Your task to perform on an android device: See recent photos Image 0: 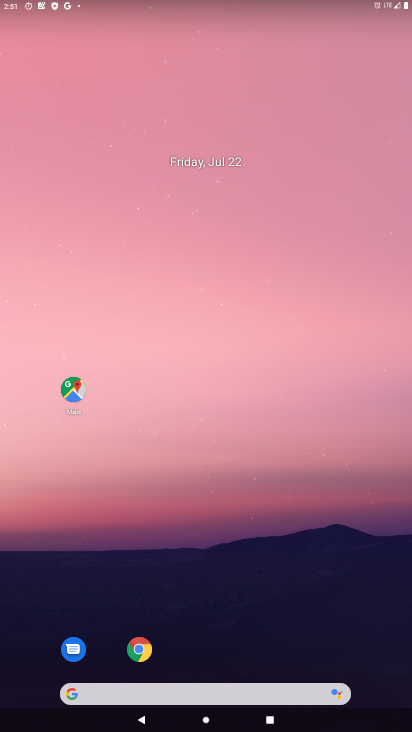
Step 0: drag from (260, 611) to (265, 84)
Your task to perform on an android device: See recent photos Image 1: 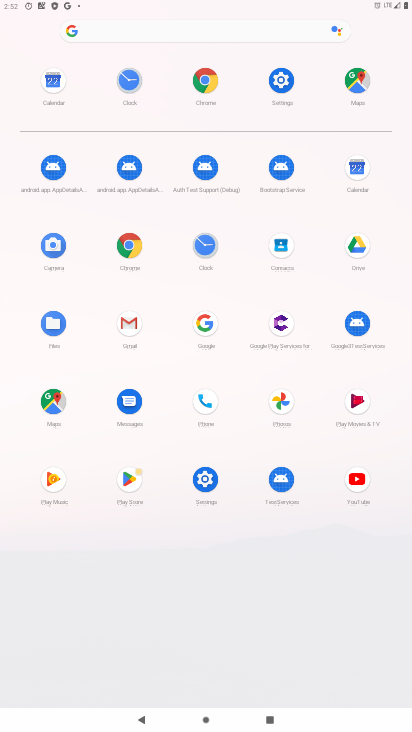
Step 1: click (280, 398)
Your task to perform on an android device: See recent photos Image 2: 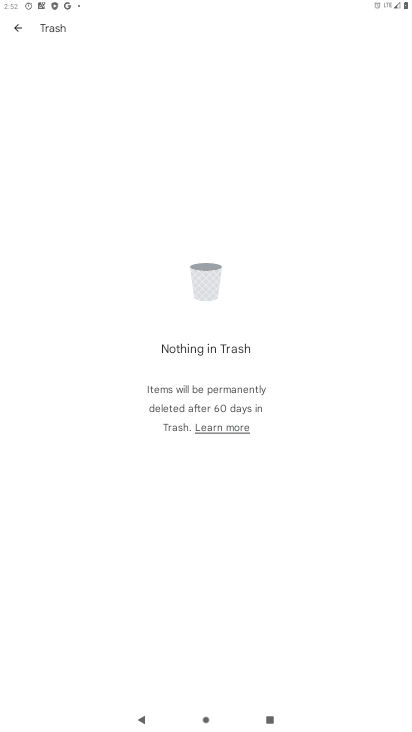
Step 2: click (19, 19)
Your task to perform on an android device: See recent photos Image 3: 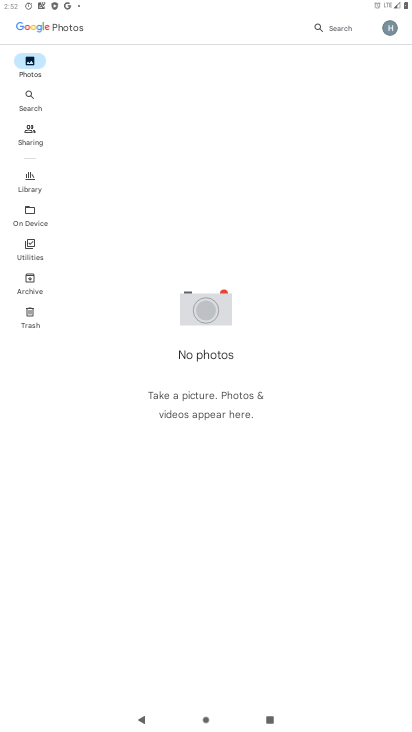
Step 3: task complete